Your task to perform on an android device: Search for vegetarian restaurants on Maps Image 0: 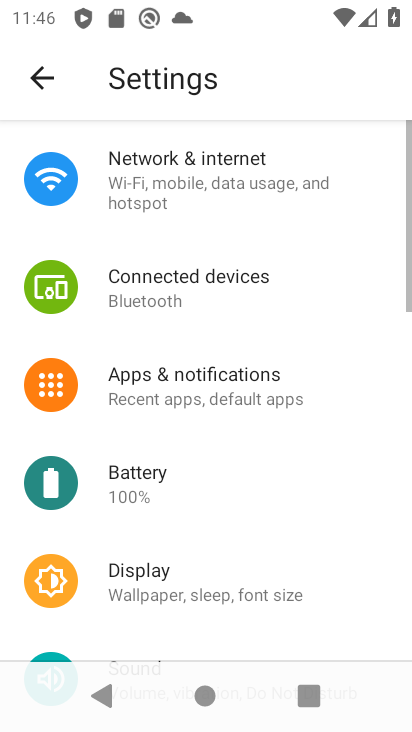
Step 0: press home button
Your task to perform on an android device: Search for vegetarian restaurants on Maps Image 1: 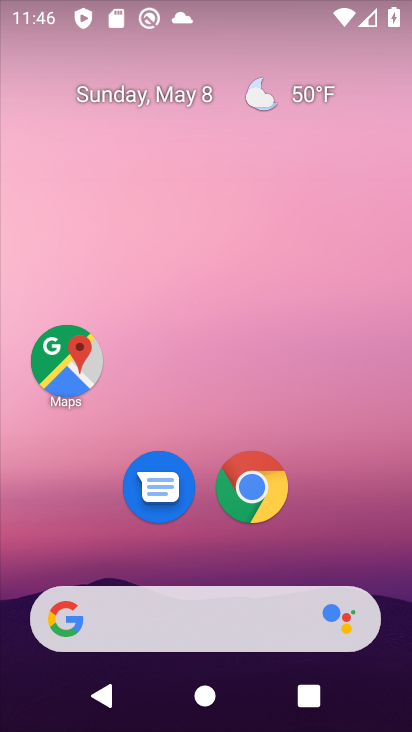
Step 1: click (318, 515)
Your task to perform on an android device: Search for vegetarian restaurants on Maps Image 2: 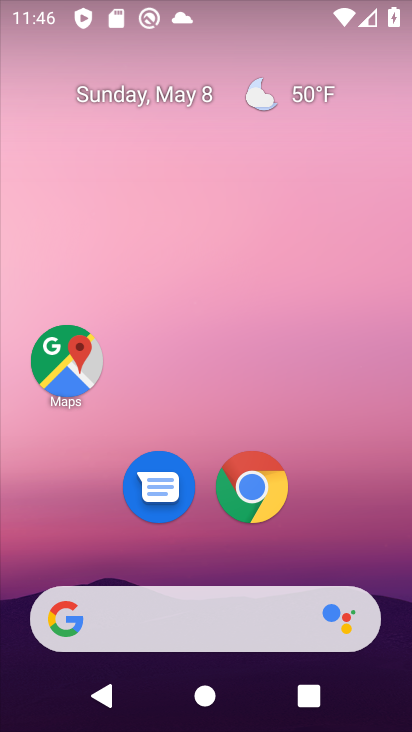
Step 2: click (72, 333)
Your task to perform on an android device: Search for vegetarian restaurants on Maps Image 3: 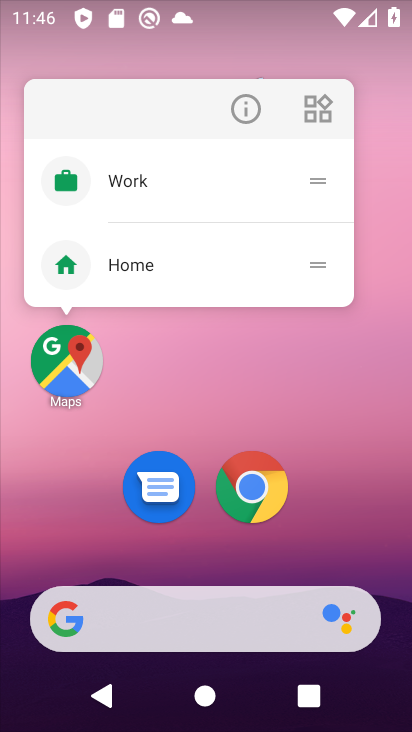
Step 3: click (66, 378)
Your task to perform on an android device: Search for vegetarian restaurants on Maps Image 4: 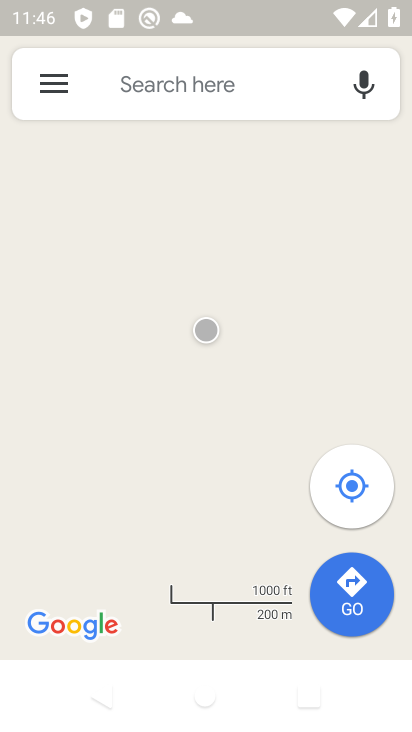
Step 4: click (185, 80)
Your task to perform on an android device: Search for vegetarian restaurants on Maps Image 5: 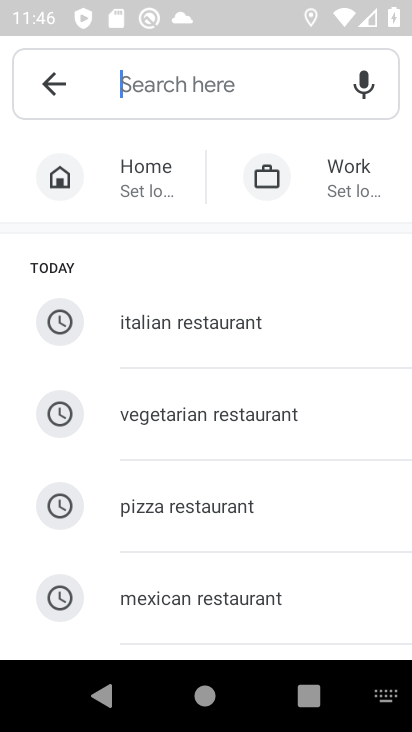
Step 5: type "vegetarian restaurants"
Your task to perform on an android device: Search for vegetarian restaurants on Maps Image 6: 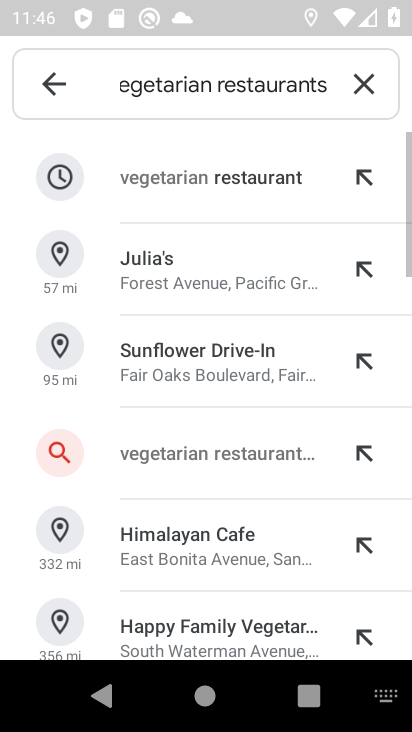
Step 6: click (292, 193)
Your task to perform on an android device: Search for vegetarian restaurants on Maps Image 7: 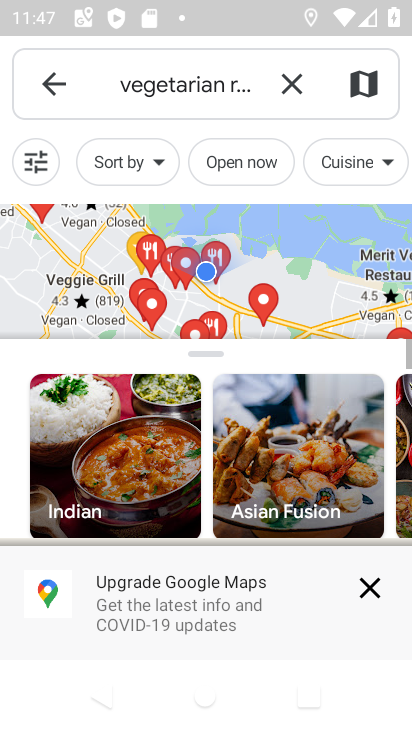
Step 7: task complete